Your task to perform on an android device: Go to eBay Image 0: 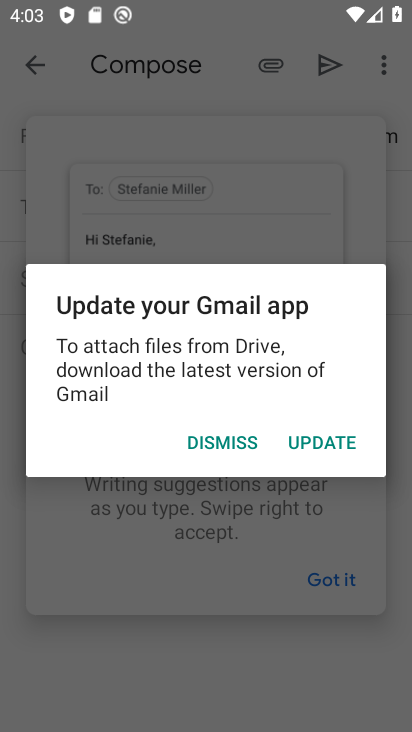
Step 0: press home button
Your task to perform on an android device: Go to eBay Image 1: 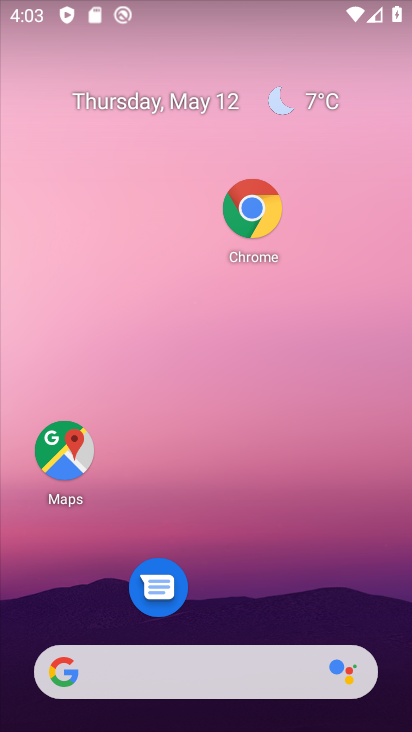
Step 1: click (256, 261)
Your task to perform on an android device: Go to eBay Image 2: 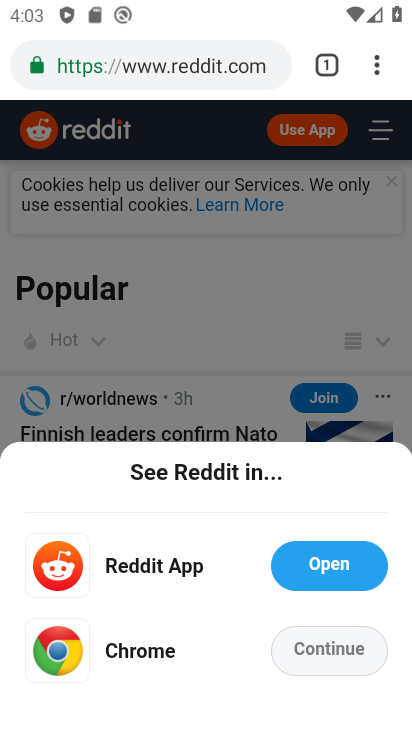
Step 2: press back button
Your task to perform on an android device: Go to eBay Image 3: 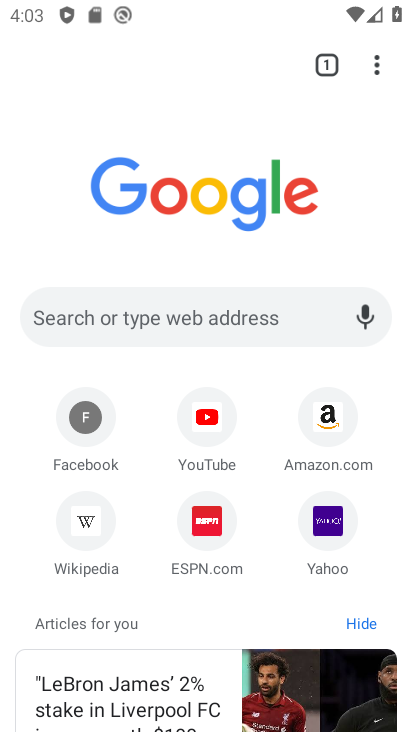
Step 3: click (186, 317)
Your task to perform on an android device: Go to eBay Image 4: 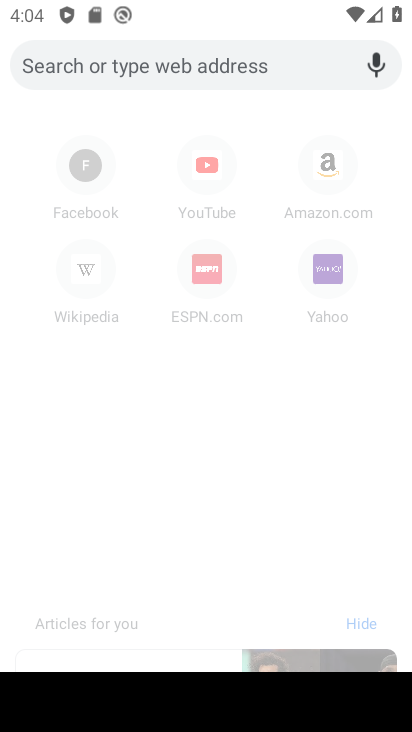
Step 4: type "www.ebay.com"
Your task to perform on an android device: Go to eBay Image 5: 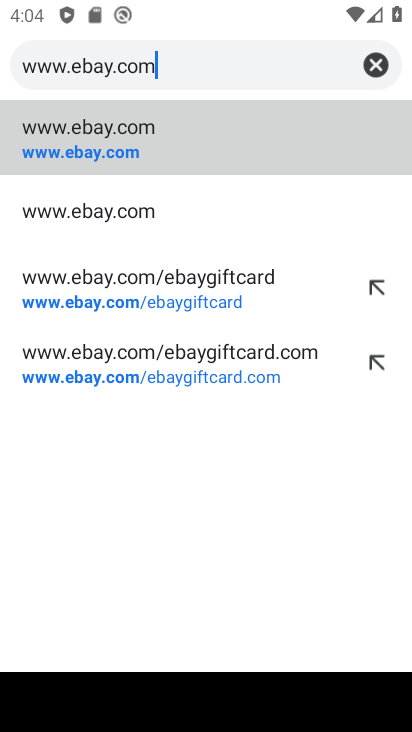
Step 5: click (71, 156)
Your task to perform on an android device: Go to eBay Image 6: 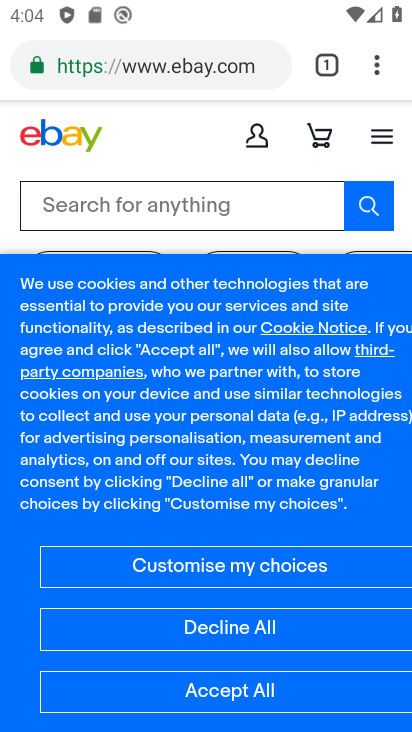
Step 6: task complete